Your task to perform on an android device: turn on sleep mode Image 0: 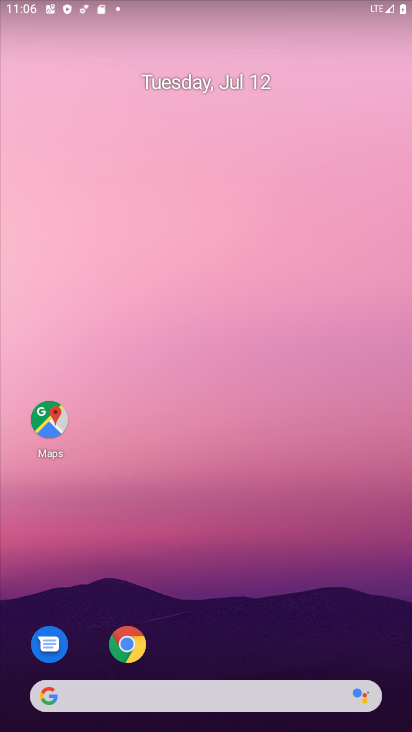
Step 0: drag from (195, 729) to (248, 14)
Your task to perform on an android device: turn on sleep mode Image 1: 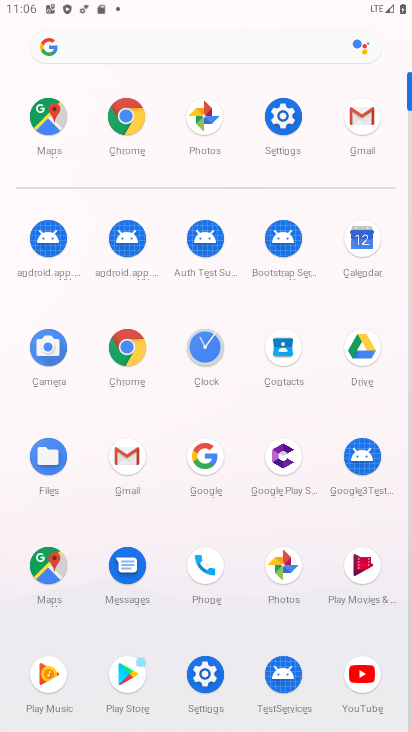
Step 1: click (278, 124)
Your task to perform on an android device: turn on sleep mode Image 2: 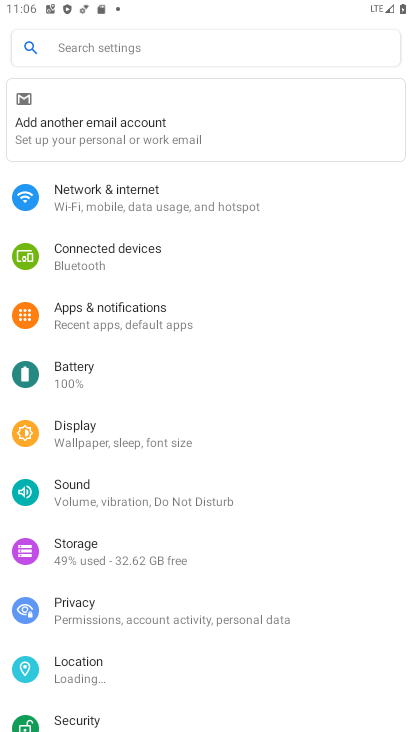
Step 2: click (162, 442)
Your task to perform on an android device: turn on sleep mode Image 3: 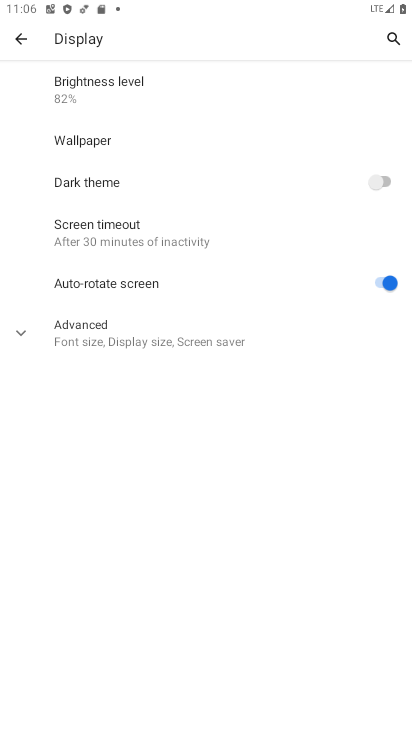
Step 3: task complete